Your task to perform on an android device: open app "Google Home" Image 0: 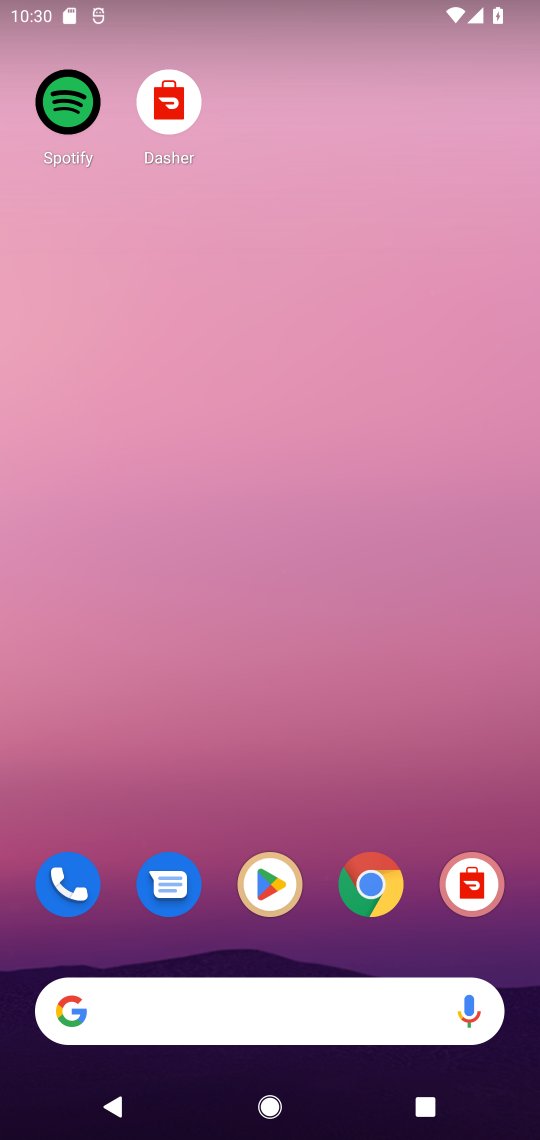
Step 0: click (271, 882)
Your task to perform on an android device: open app "Google Home" Image 1: 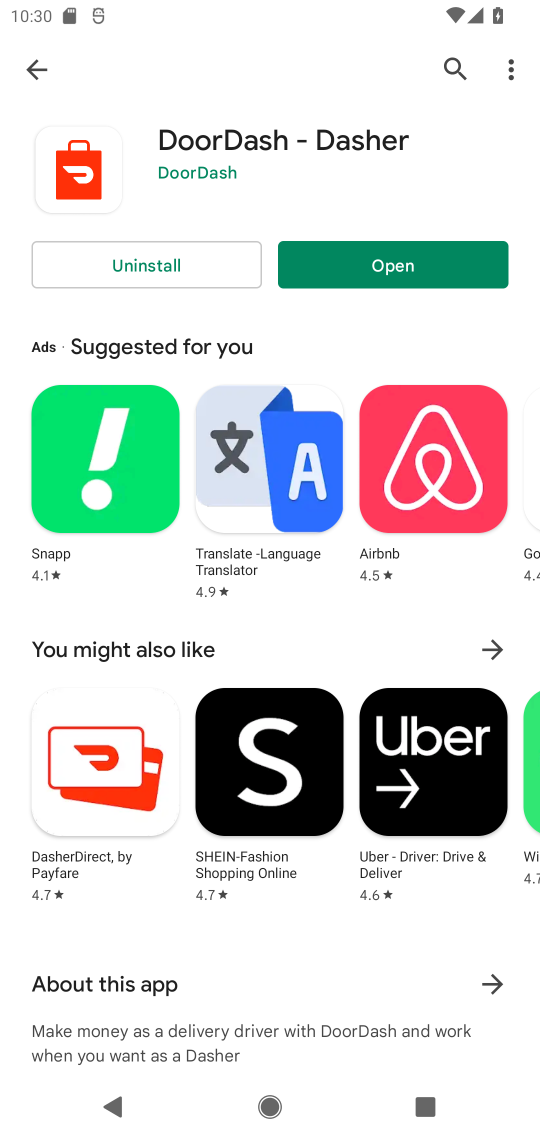
Step 1: click (447, 62)
Your task to perform on an android device: open app "Google Home" Image 2: 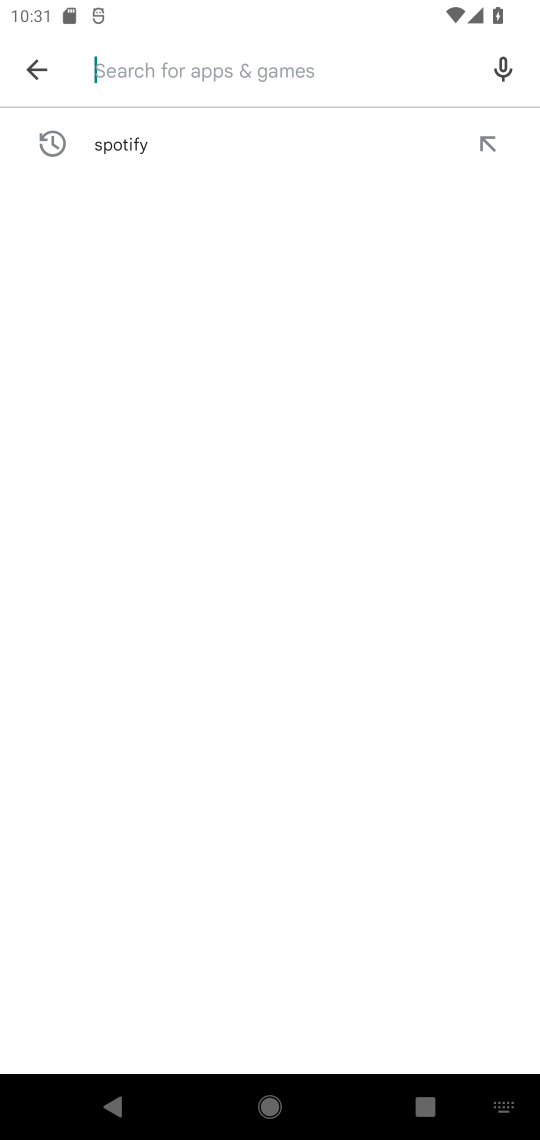
Step 2: type "Google Home"
Your task to perform on an android device: open app "Google Home" Image 3: 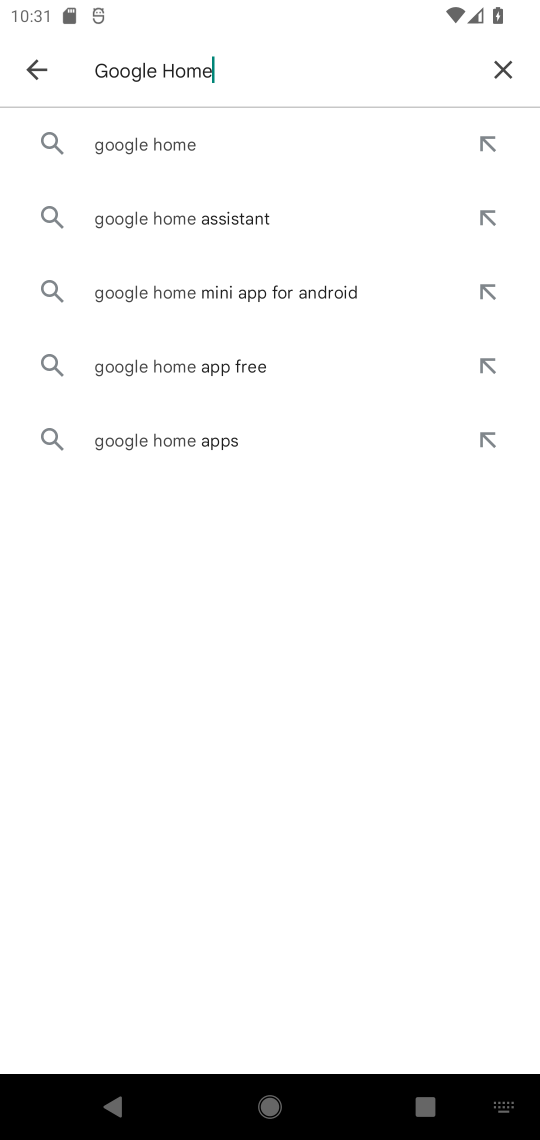
Step 3: click (135, 144)
Your task to perform on an android device: open app "Google Home" Image 4: 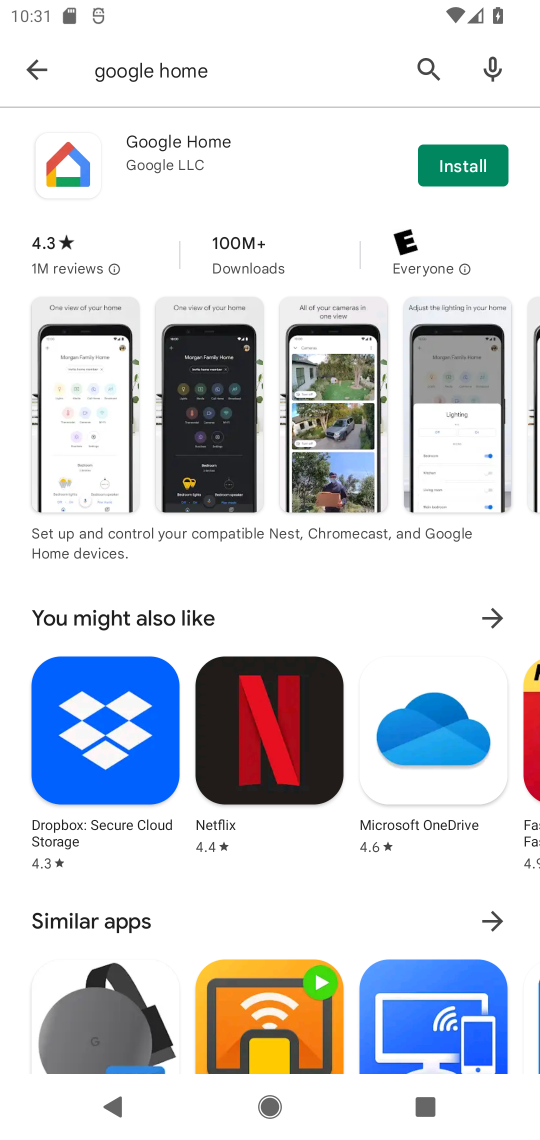
Step 4: task complete